Your task to perform on an android device: allow notifications from all sites in the chrome app Image 0: 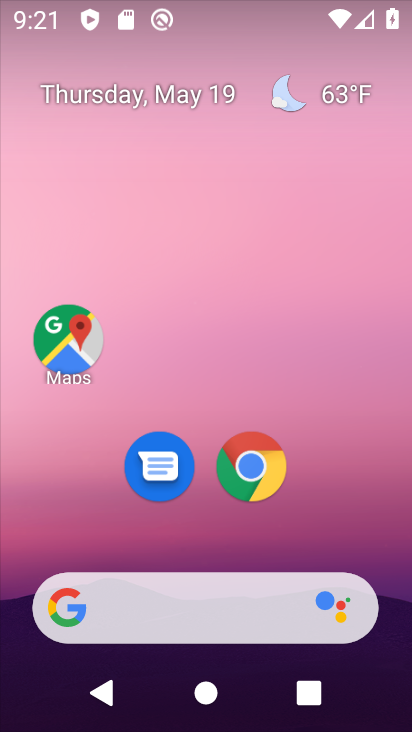
Step 0: drag from (391, 623) to (297, 4)
Your task to perform on an android device: allow notifications from all sites in the chrome app Image 1: 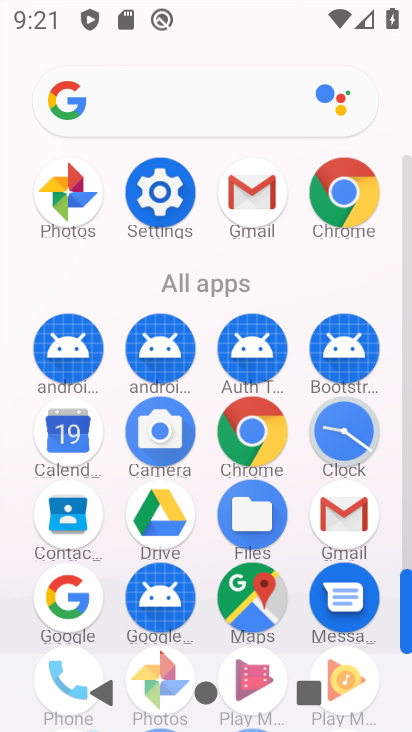
Step 1: click (241, 417)
Your task to perform on an android device: allow notifications from all sites in the chrome app Image 2: 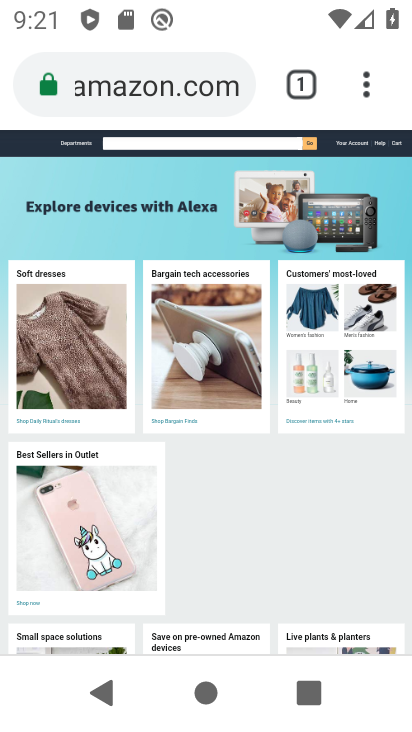
Step 2: press back button
Your task to perform on an android device: allow notifications from all sites in the chrome app Image 3: 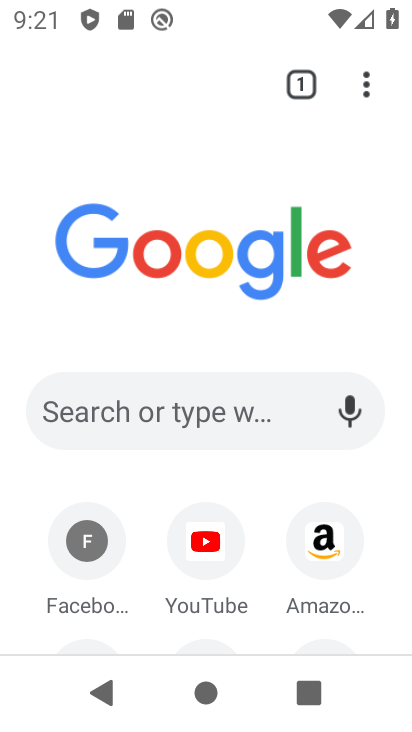
Step 3: click (358, 92)
Your task to perform on an android device: allow notifications from all sites in the chrome app Image 4: 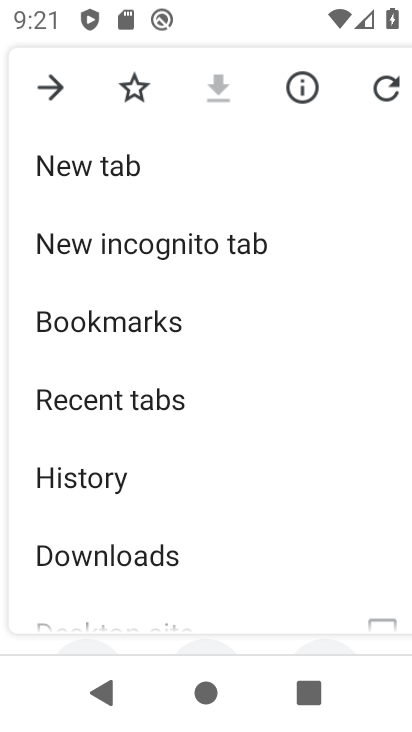
Step 4: drag from (163, 587) to (248, 199)
Your task to perform on an android device: allow notifications from all sites in the chrome app Image 5: 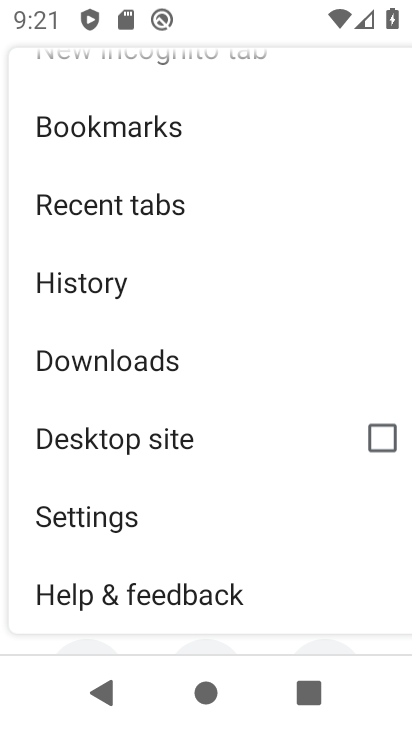
Step 5: click (156, 499)
Your task to perform on an android device: allow notifications from all sites in the chrome app Image 6: 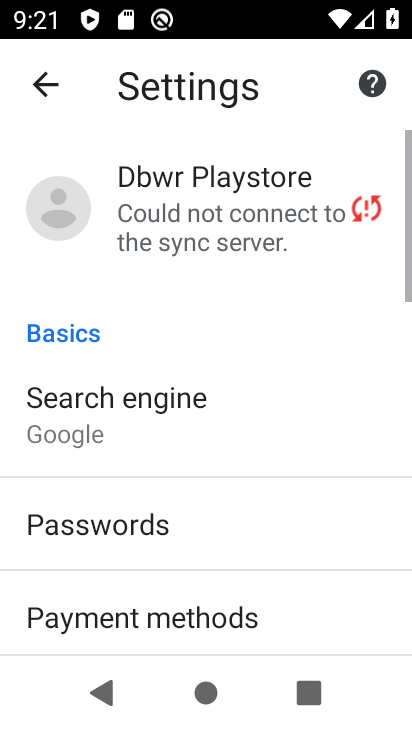
Step 6: drag from (149, 616) to (239, 150)
Your task to perform on an android device: allow notifications from all sites in the chrome app Image 7: 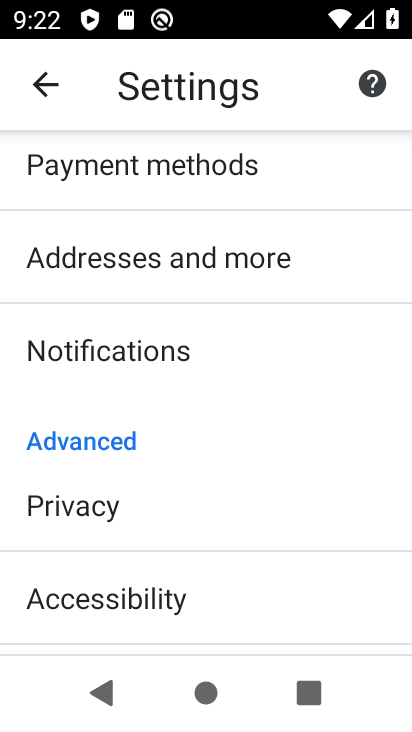
Step 7: click (142, 378)
Your task to perform on an android device: allow notifications from all sites in the chrome app Image 8: 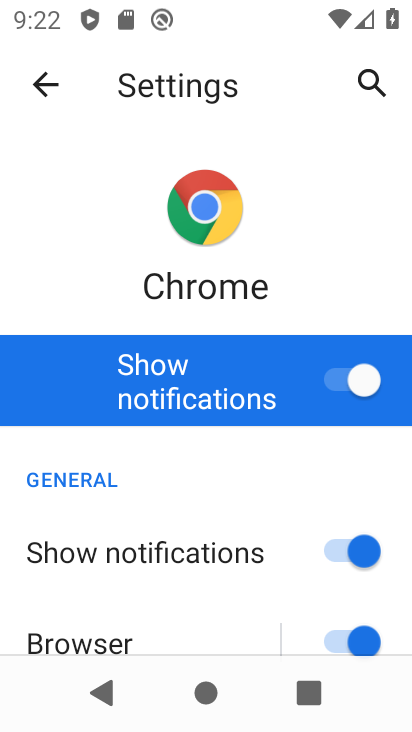
Step 8: task complete